Your task to perform on an android device: Go to wifi settings Image 0: 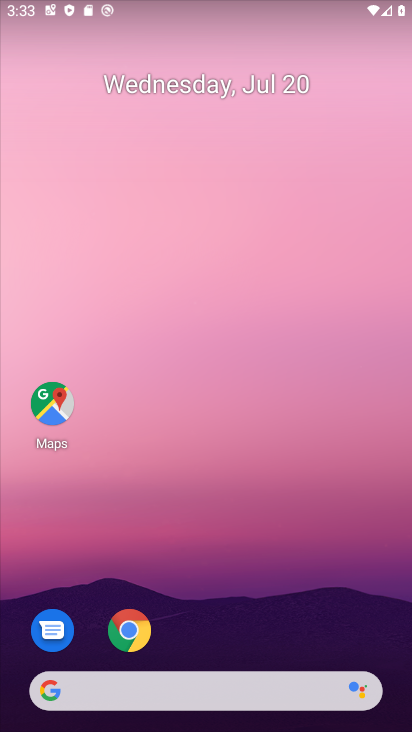
Step 0: press home button
Your task to perform on an android device: Go to wifi settings Image 1: 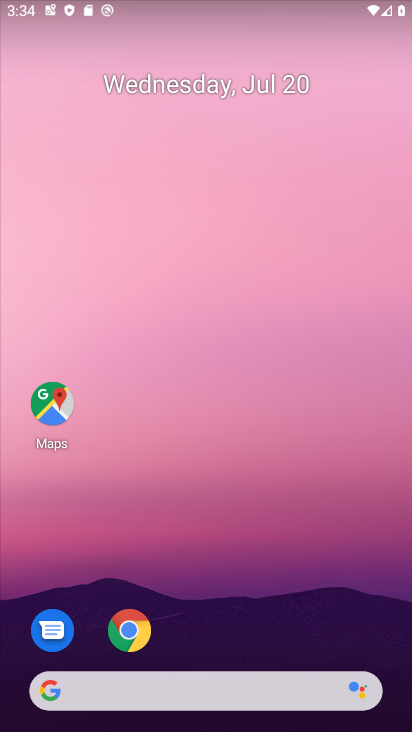
Step 1: drag from (200, 647) to (213, 23)
Your task to perform on an android device: Go to wifi settings Image 2: 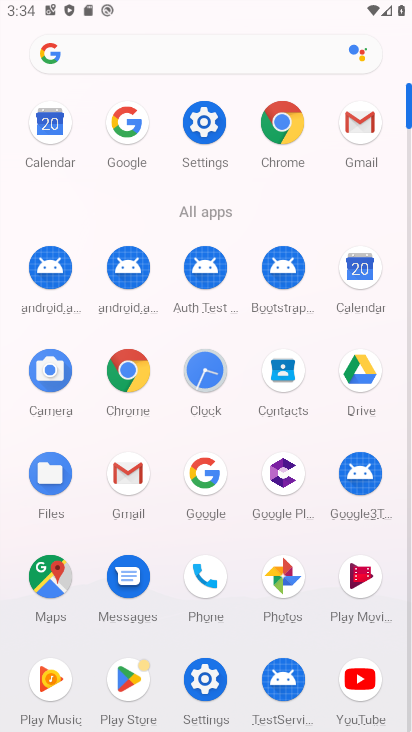
Step 2: click (202, 115)
Your task to perform on an android device: Go to wifi settings Image 3: 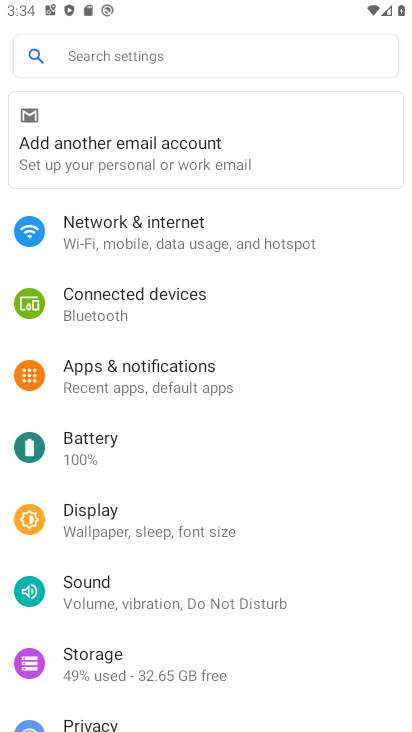
Step 3: click (138, 211)
Your task to perform on an android device: Go to wifi settings Image 4: 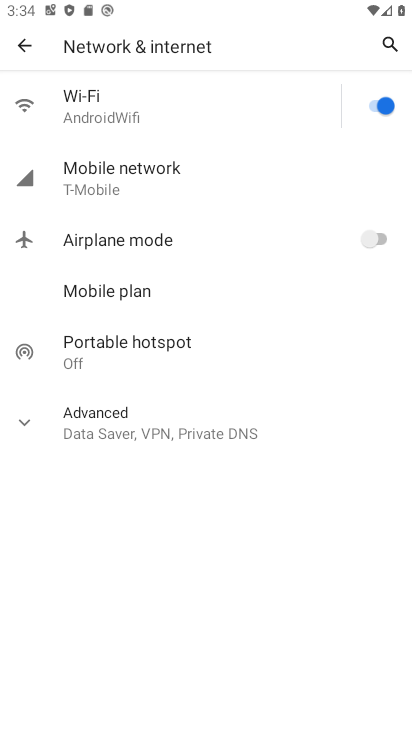
Step 4: click (125, 105)
Your task to perform on an android device: Go to wifi settings Image 5: 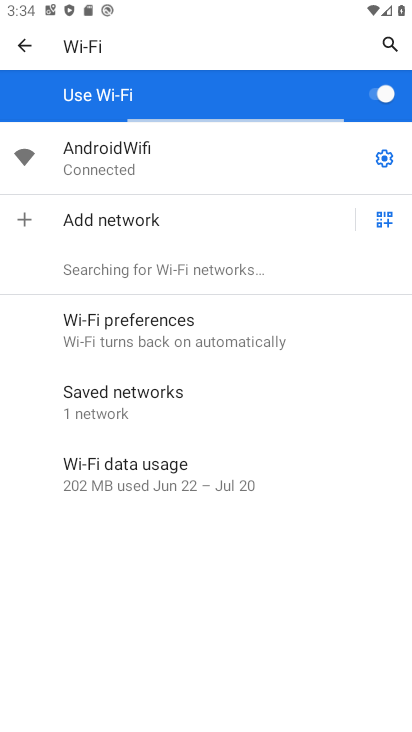
Step 5: task complete